Your task to perform on an android device: Go to network settings Image 0: 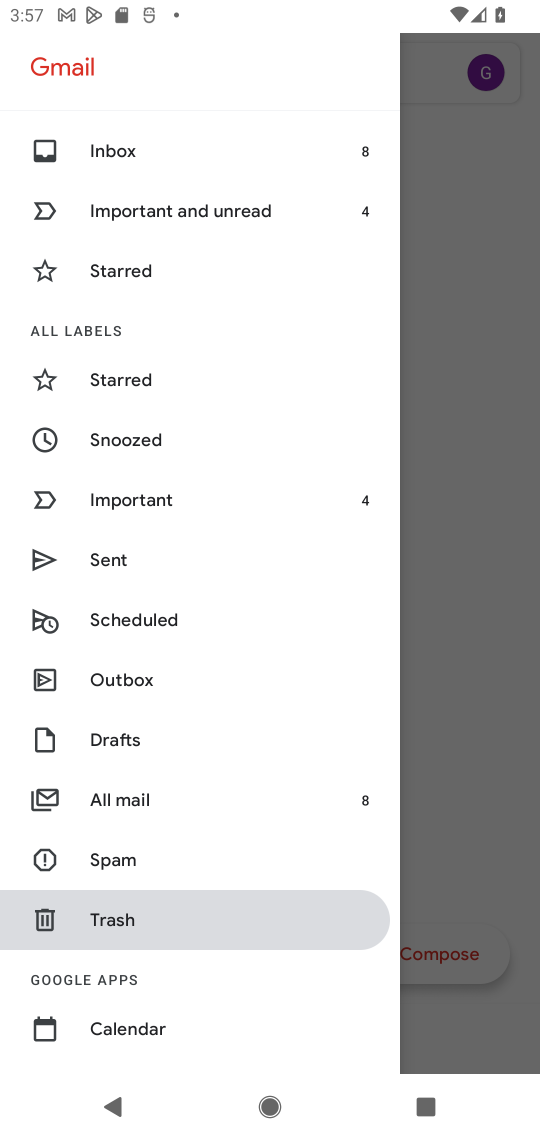
Step 0: press home button
Your task to perform on an android device: Go to network settings Image 1: 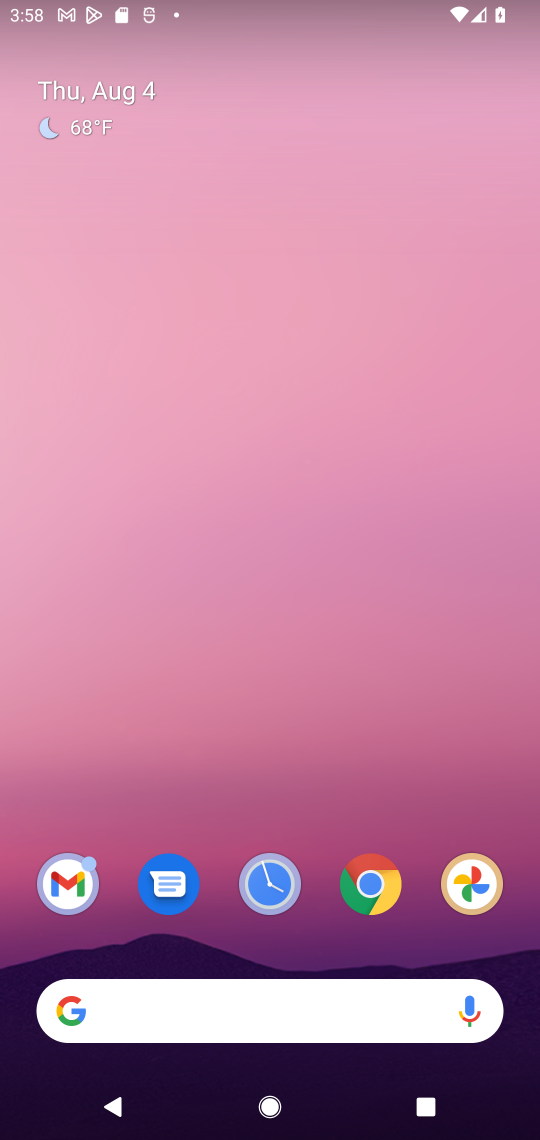
Step 1: drag from (220, 968) to (232, 359)
Your task to perform on an android device: Go to network settings Image 2: 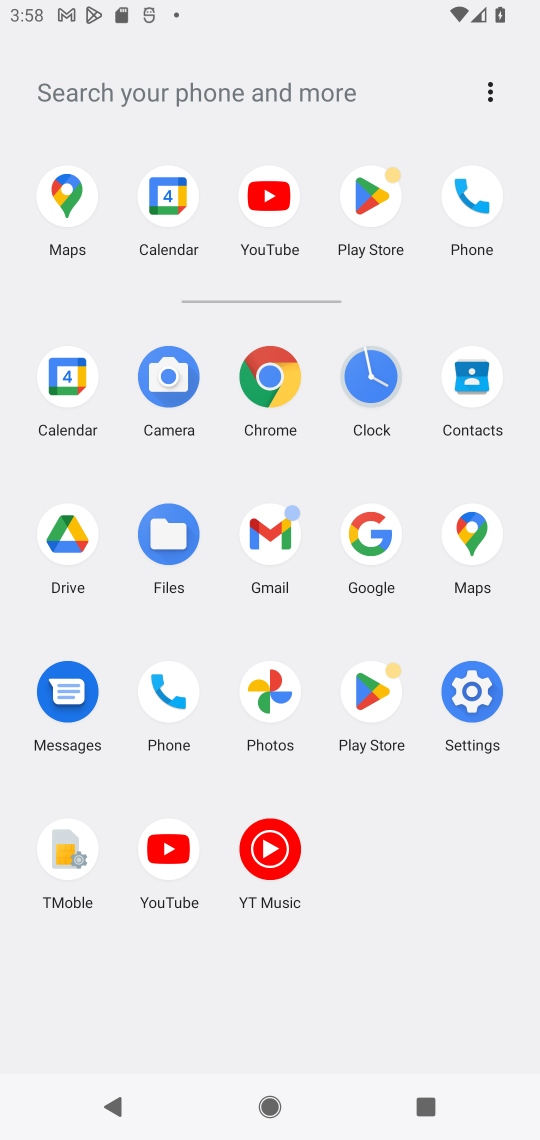
Step 2: click (475, 666)
Your task to perform on an android device: Go to network settings Image 3: 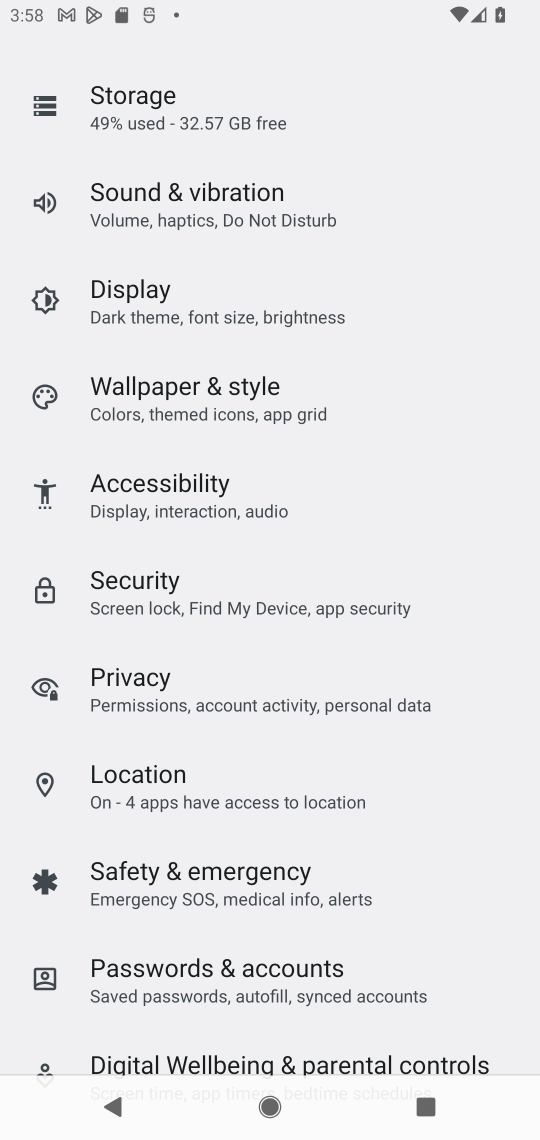
Step 3: task complete